Your task to perform on an android device: check the backup settings in the google photos Image 0: 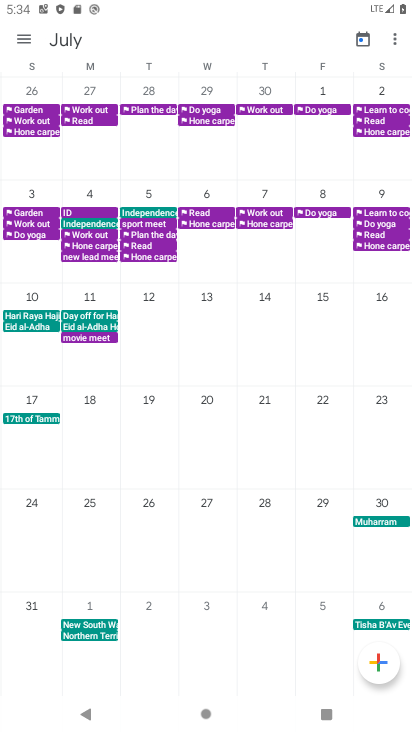
Step 0: press home button
Your task to perform on an android device: check the backup settings in the google photos Image 1: 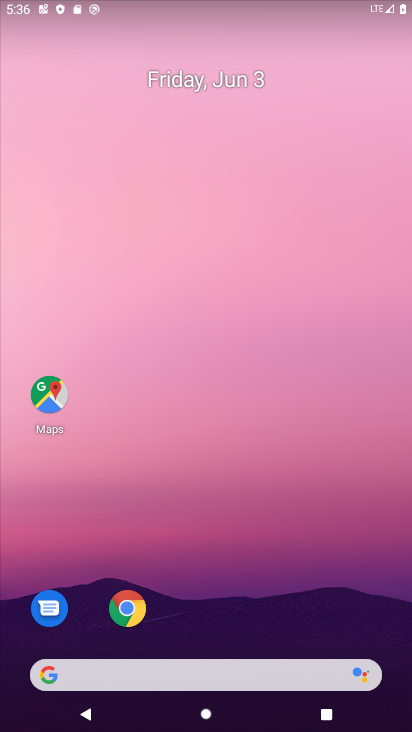
Step 1: drag from (232, 592) to (209, 97)
Your task to perform on an android device: check the backup settings in the google photos Image 2: 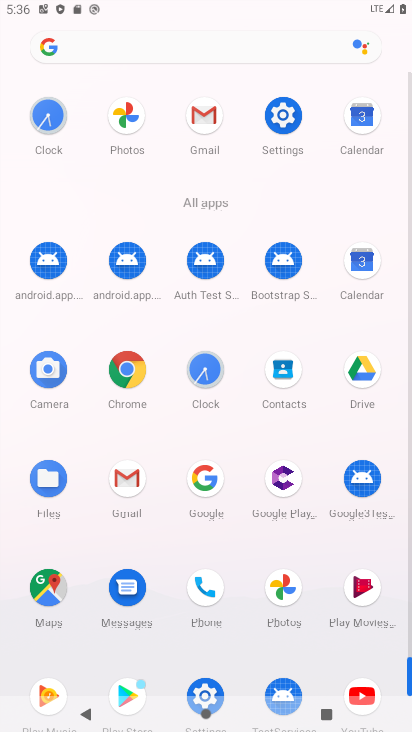
Step 2: click (121, 112)
Your task to perform on an android device: check the backup settings in the google photos Image 3: 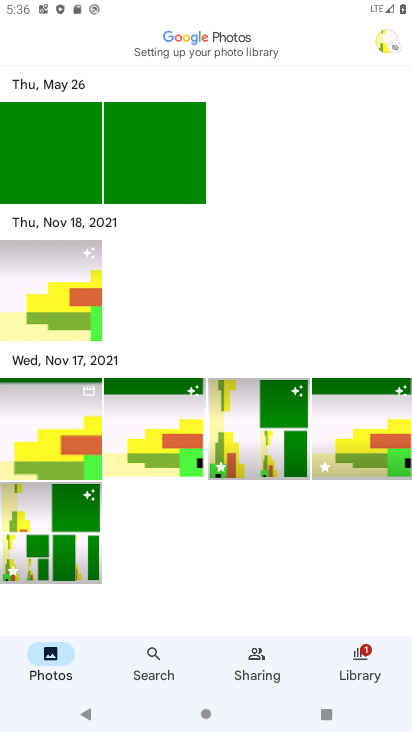
Step 3: click (373, 42)
Your task to perform on an android device: check the backup settings in the google photos Image 4: 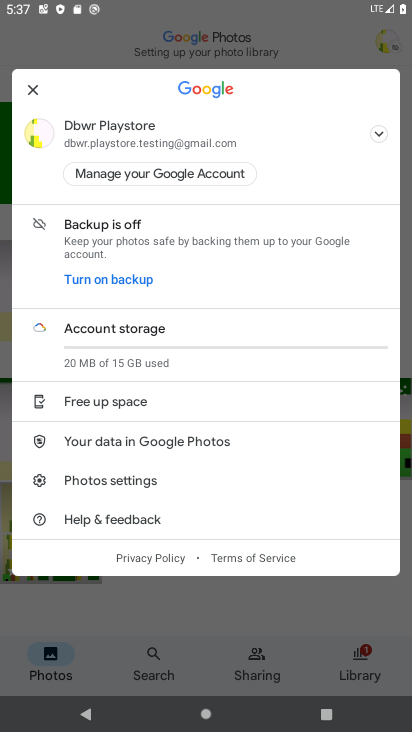
Step 4: click (187, 241)
Your task to perform on an android device: check the backup settings in the google photos Image 5: 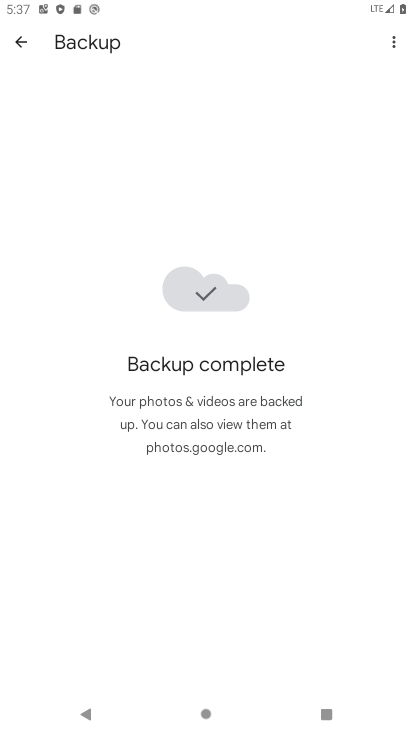
Step 5: task complete